Your task to perform on an android device: stop showing notifications on the lock screen Image 0: 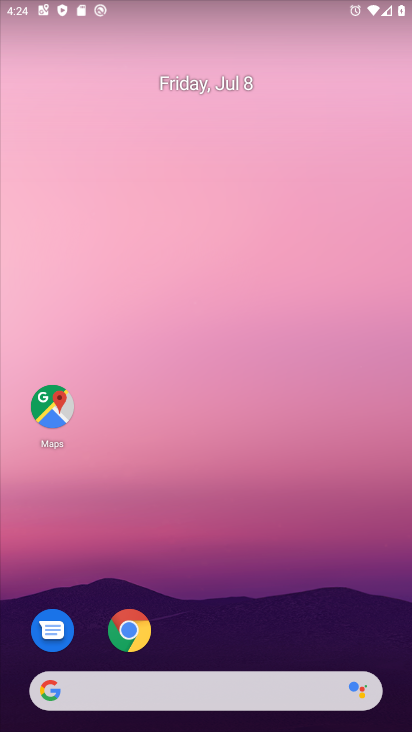
Step 0: drag from (233, 650) to (261, 57)
Your task to perform on an android device: stop showing notifications on the lock screen Image 1: 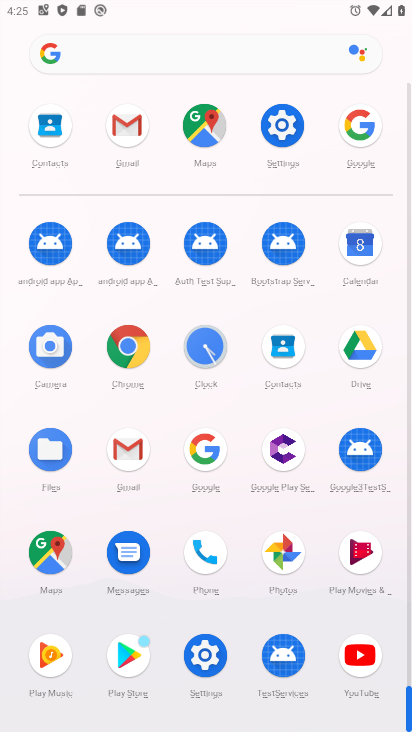
Step 1: click (282, 121)
Your task to perform on an android device: stop showing notifications on the lock screen Image 2: 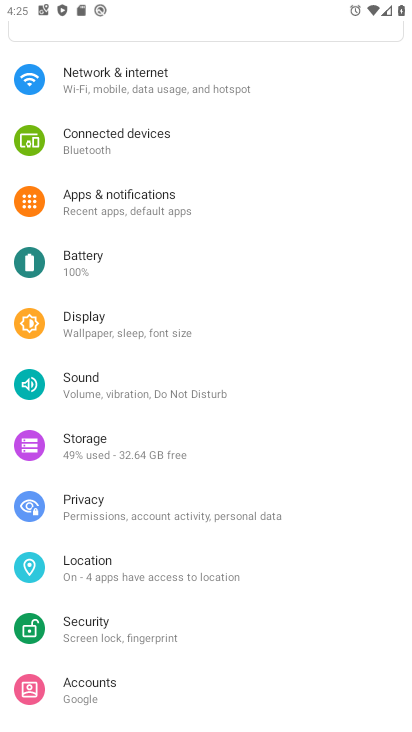
Step 2: click (163, 197)
Your task to perform on an android device: stop showing notifications on the lock screen Image 3: 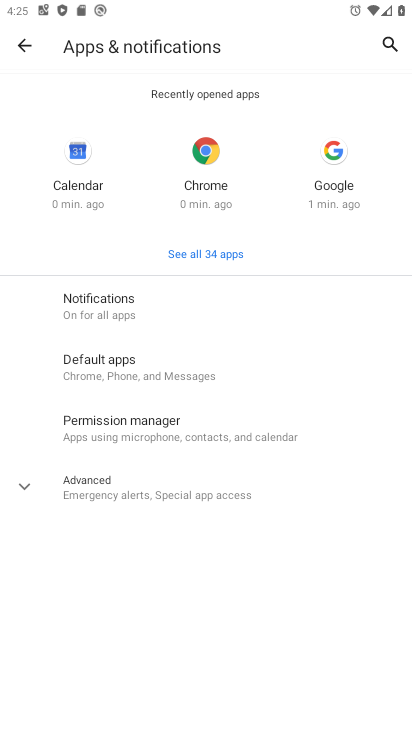
Step 3: click (111, 319)
Your task to perform on an android device: stop showing notifications on the lock screen Image 4: 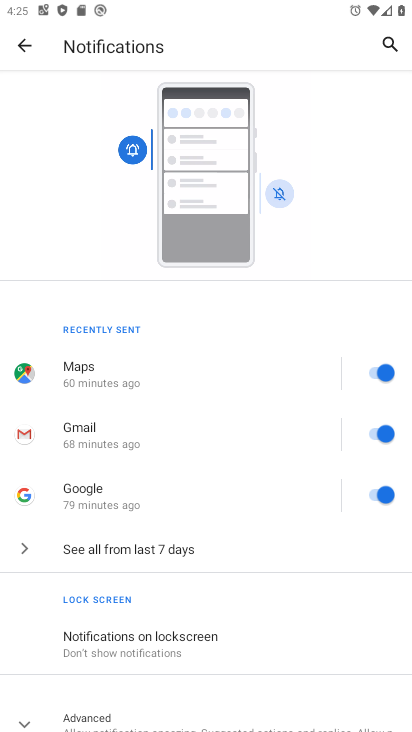
Step 4: click (141, 645)
Your task to perform on an android device: stop showing notifications on the lock screen Image 5: 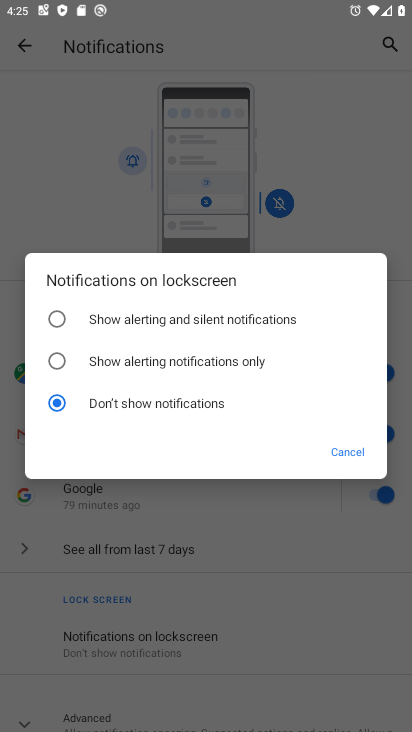
Step 5: task complete